Your task to perform on an android device: View the shopping cart on ebay. Add razer deathadder to the cart on ebay Image 0: 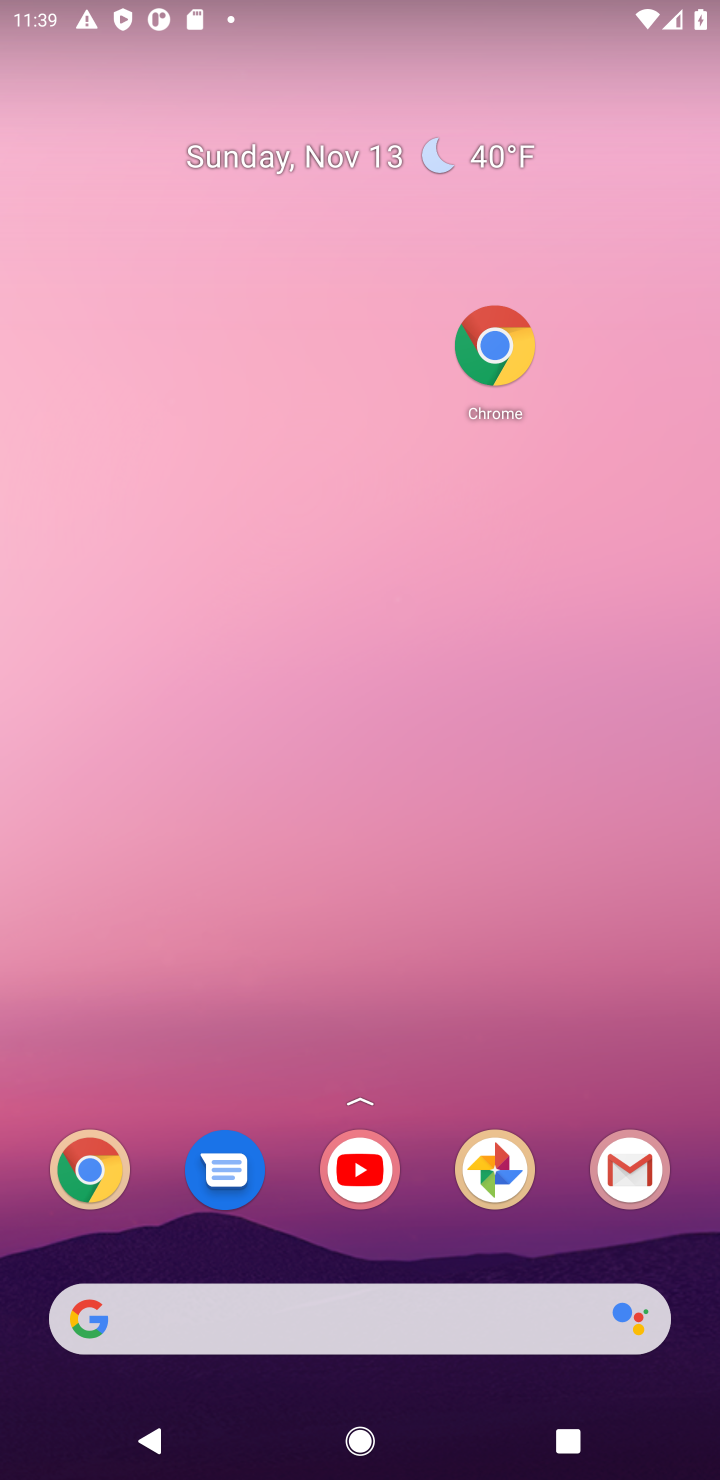
Step 0: drag from (307, 1081) to (449, 17)
Your task to perform on an android device: View the shopping cart on ebay. Add razer deathadder to the cart on ebay Image 1: 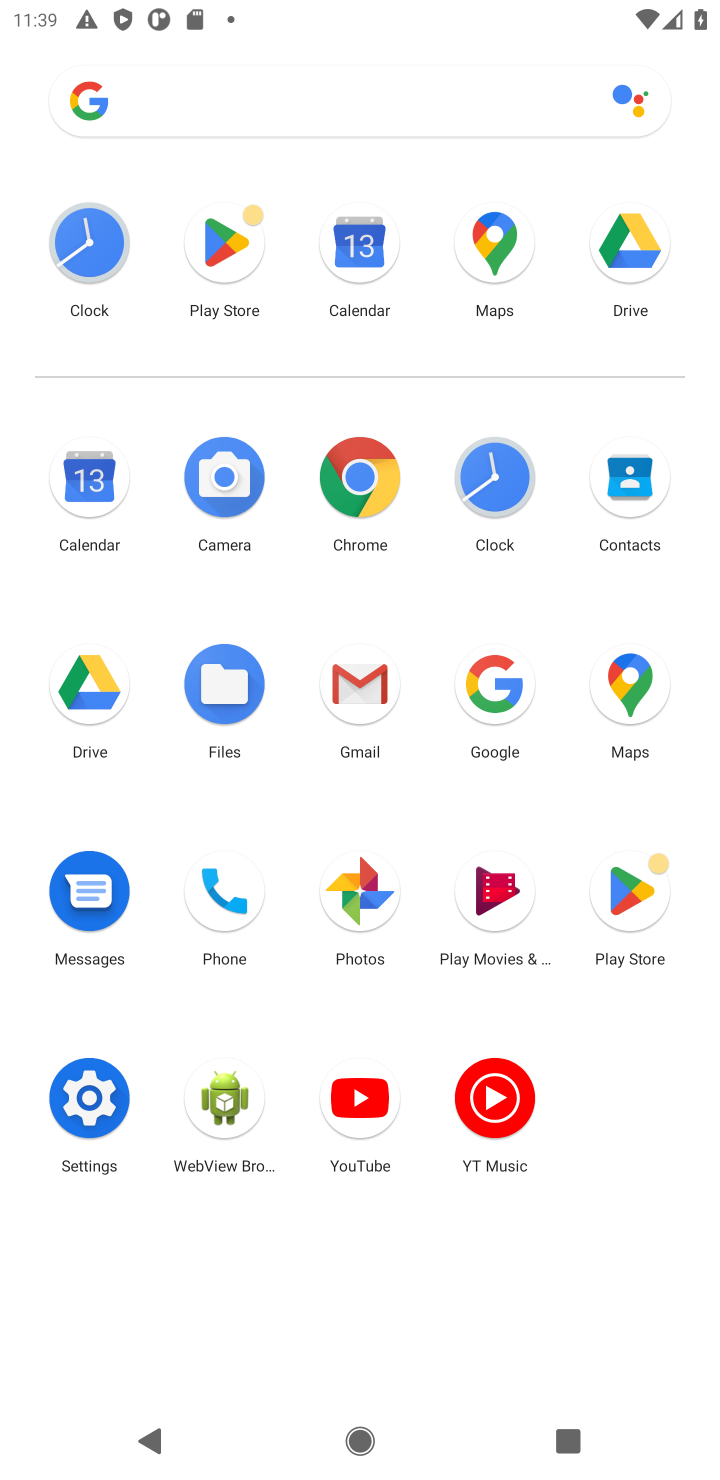
Step 1: click (374, 466)
Your task to perform on an android device: View the shopping cart on ebay. Add razer deathadder to the cart on ebay Image 2: 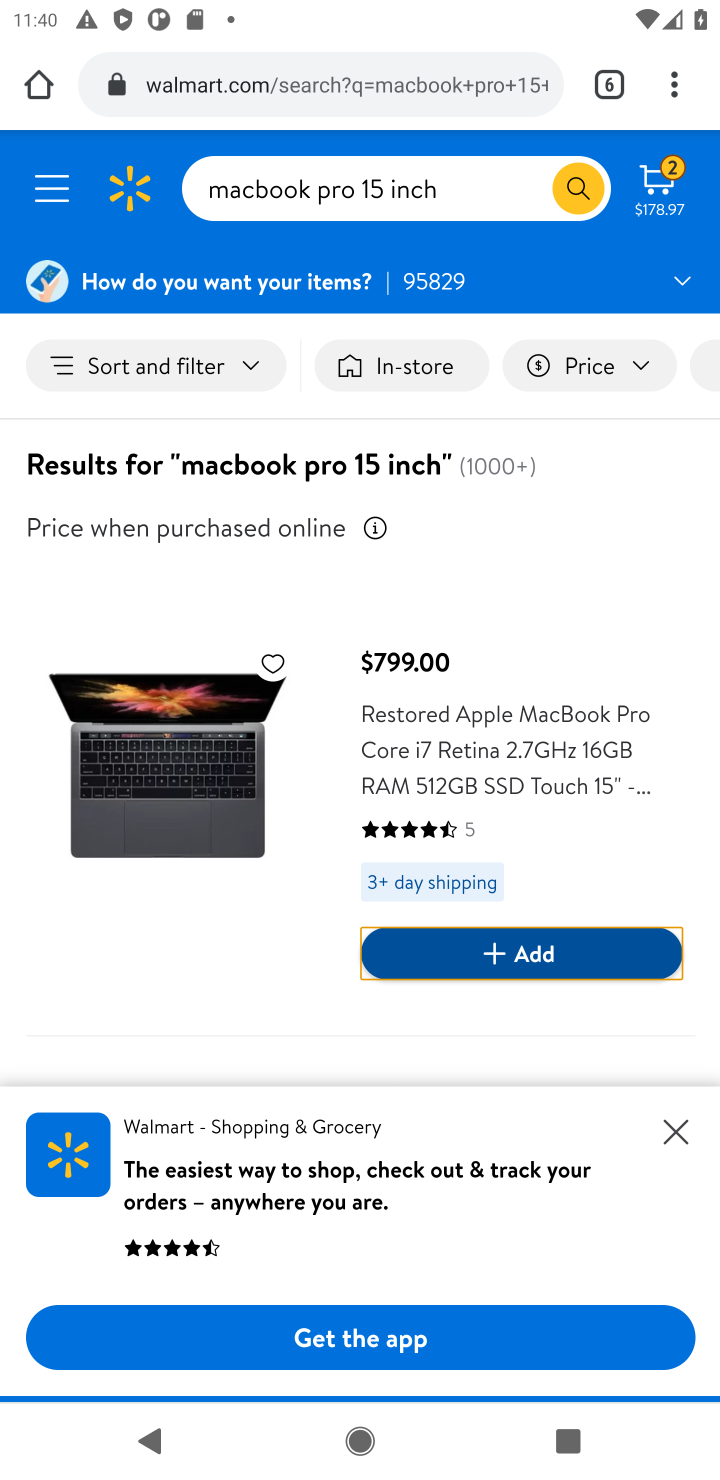
Step 2: click (412, 80)
Your task to perform on an android device: View the shopping cart on ebay. Add razer deathadder to the cart on ebay Image 3: 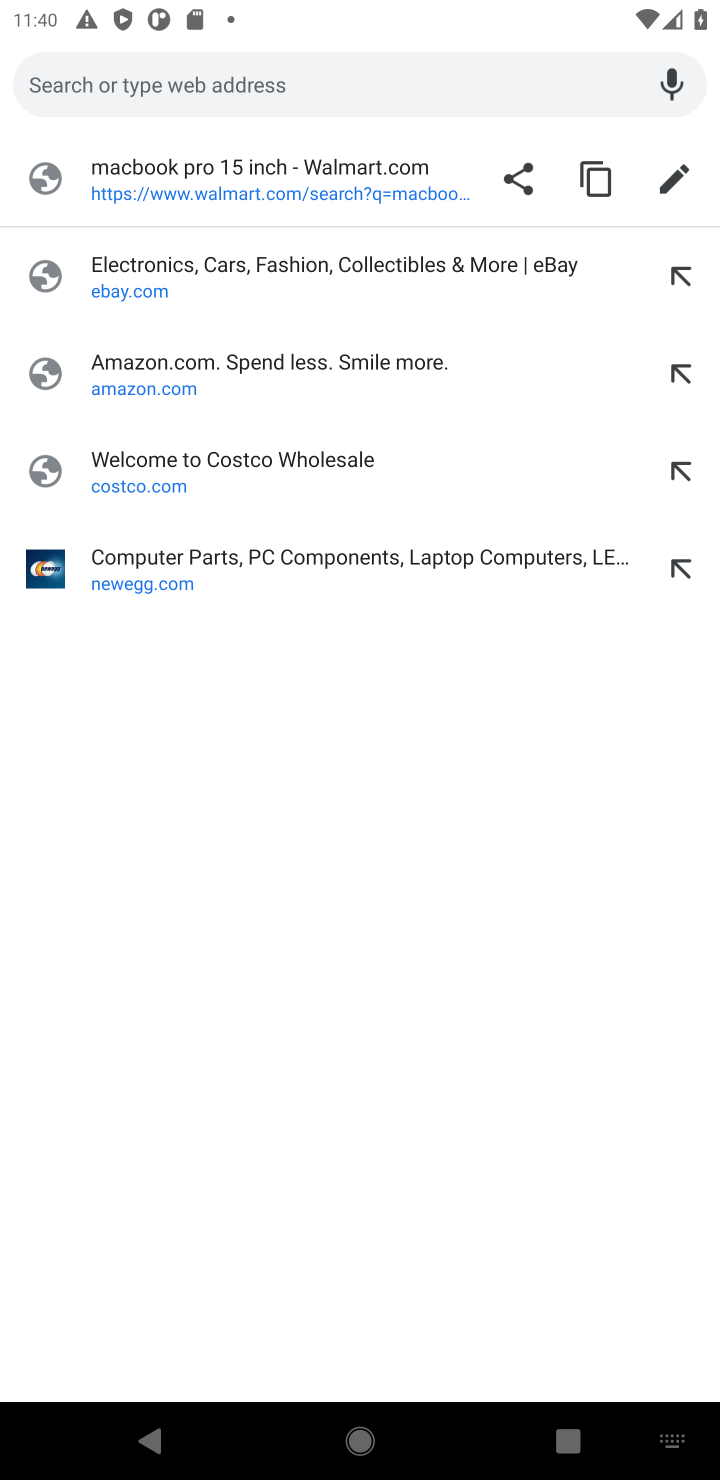
Step 3: type "ebay"
Your task to perform on an android device: View the shopping cart on ebay. Add razer deathadder to the cart on ebay Image 4: 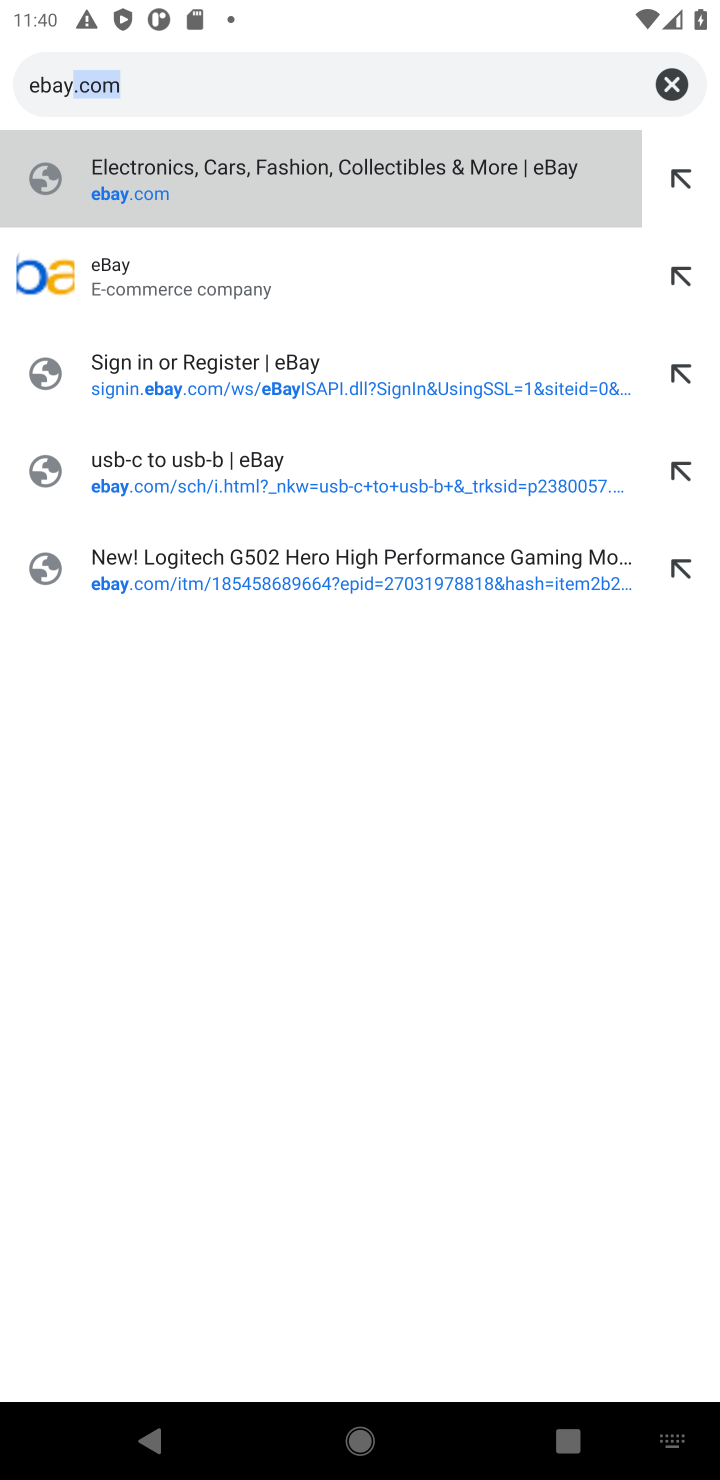
Step 4: press enter
Your task to perform on an android device: View the shopping cart on ebay. Add razer deathadder to the cart on ebay Image 5: 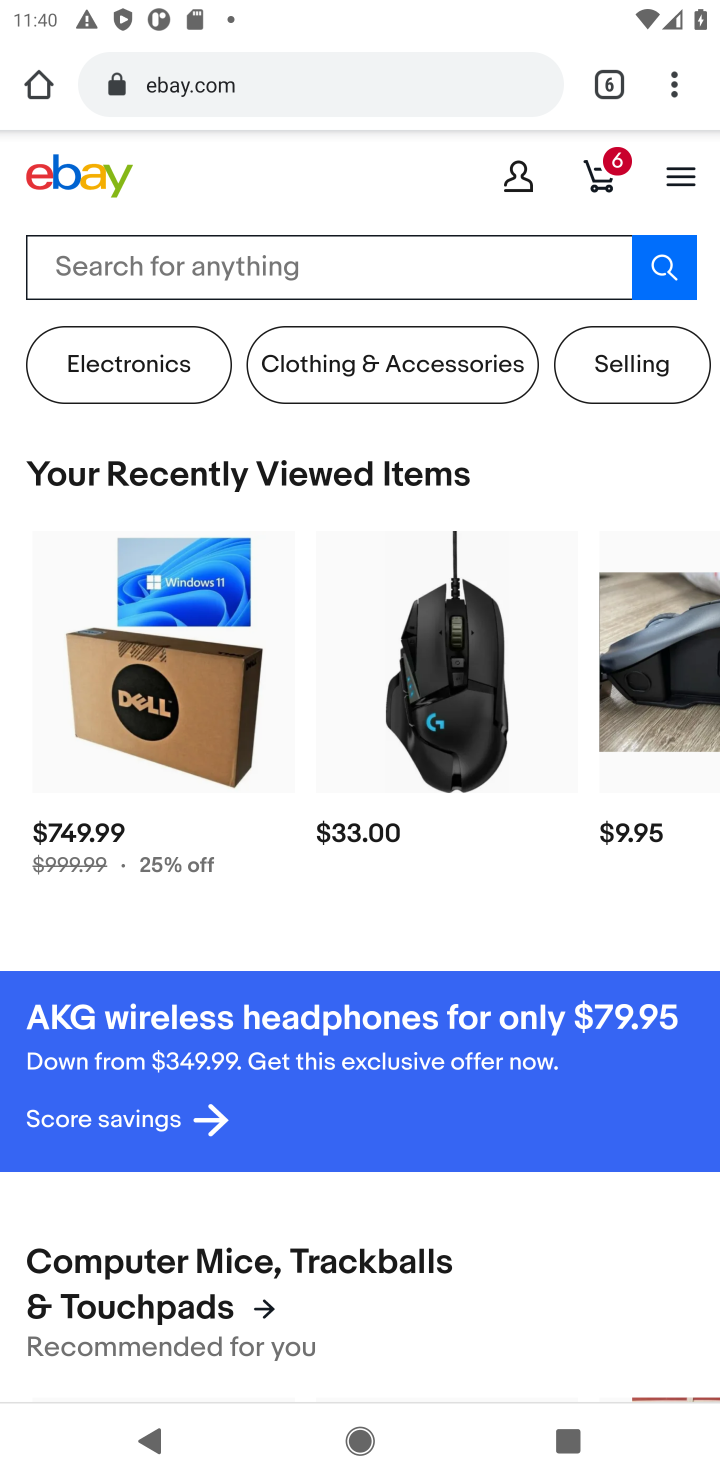
Step 5: click (306, 272)
Your task to perform on an android device: View the shopping cart on ebay. Add razer deathadder to the cart on ebay Image 6: 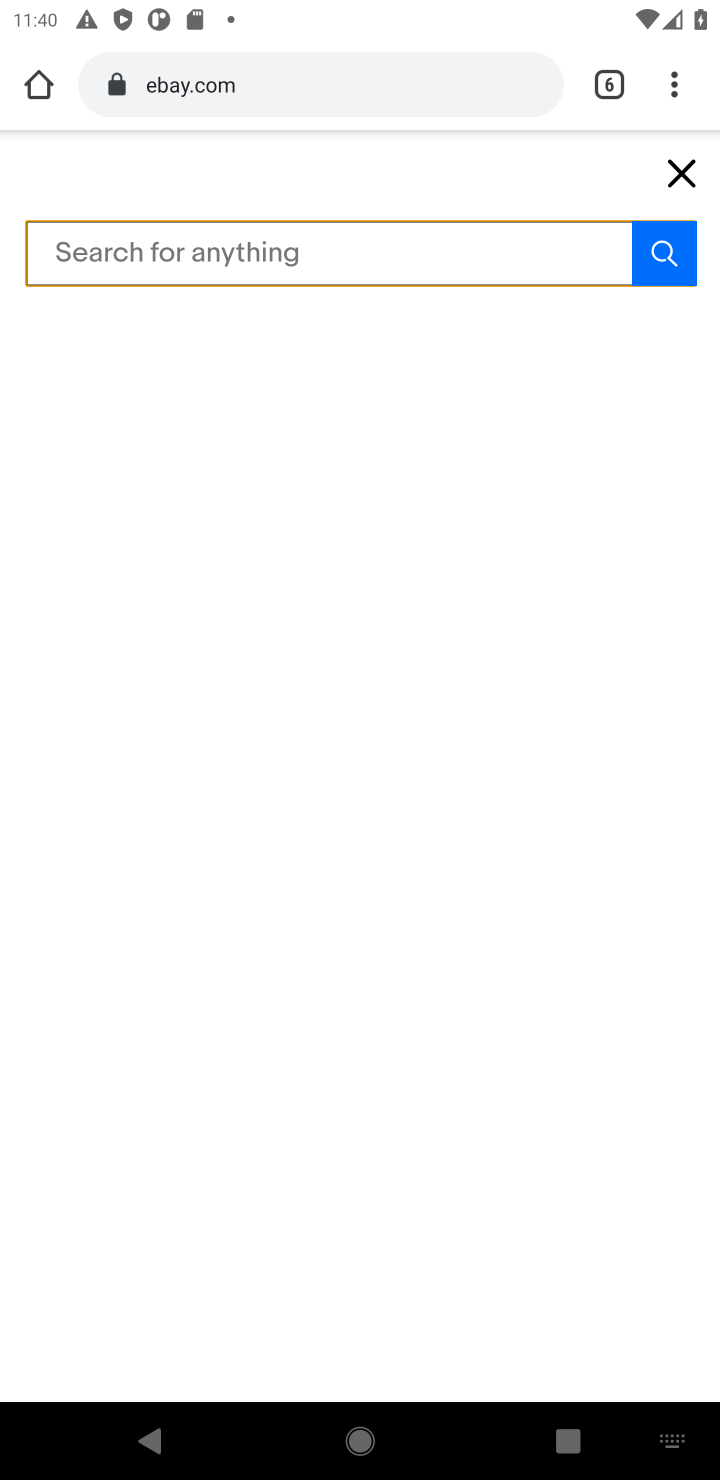
Step 6: type "Add razer deathadder"
Your task to perform on an android device: View the shopping cart on ebay. Add razer deathadder to the cart on ebay Image 7: 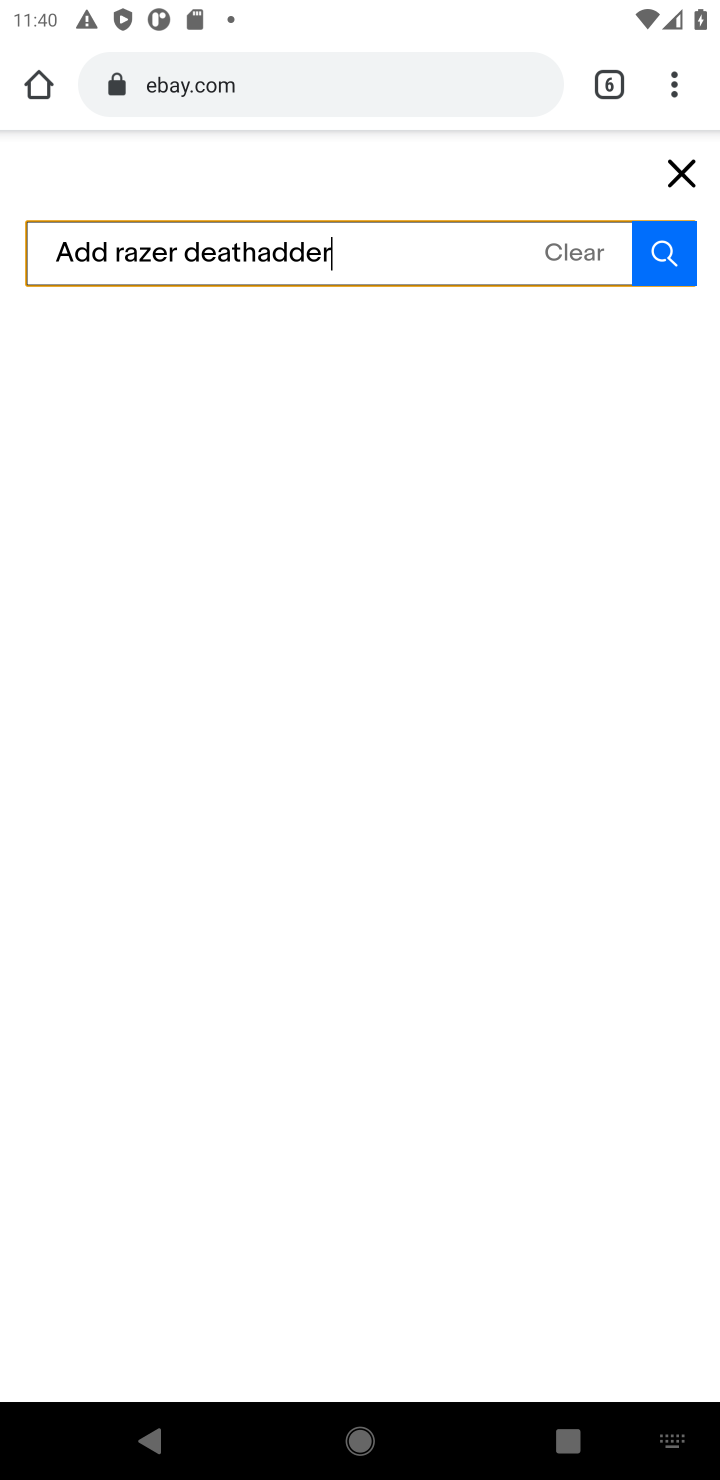
Step 7: press enter
Your task to perform on an android device: View the shopping cart on ebay. Add razer deathadder to the cart on ebay Image 8: 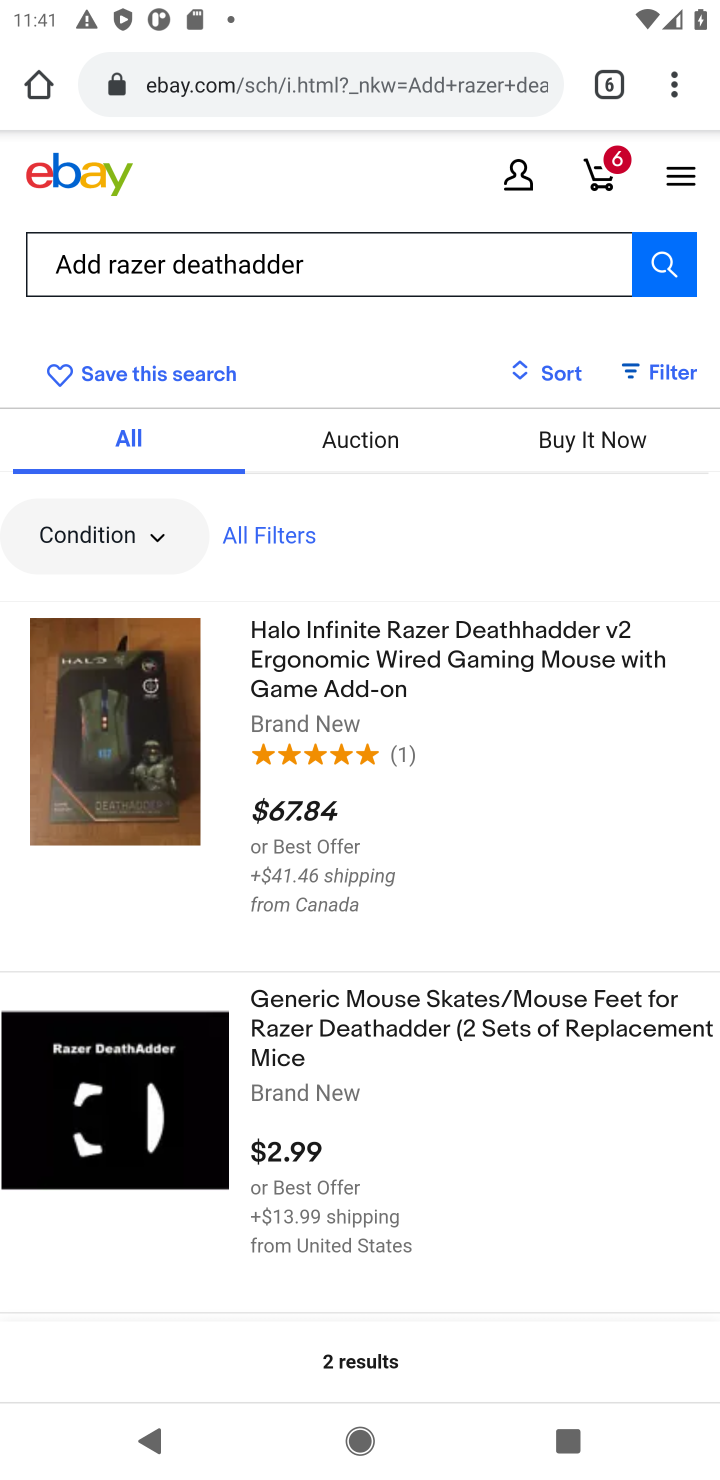
Step 8: click (393, 676)
Your task to perform on an android device: View the shopping cart on ebay. Add razer deathadder to the cart on ebay Image 9: 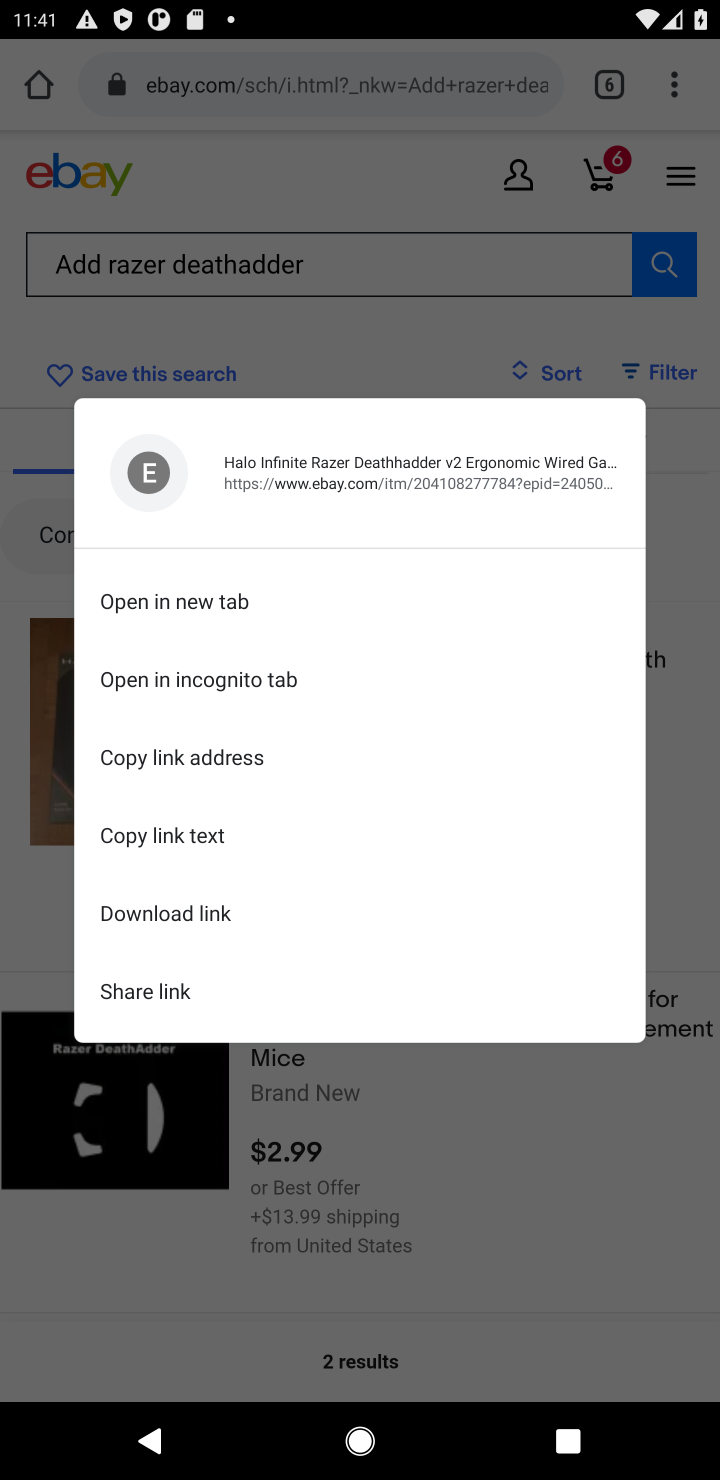
Step 9: click (112, 602)
Your task to perform on an android device: View the shopping cart on ebay. Add razer deathadder to the cart on ebay Image 10: 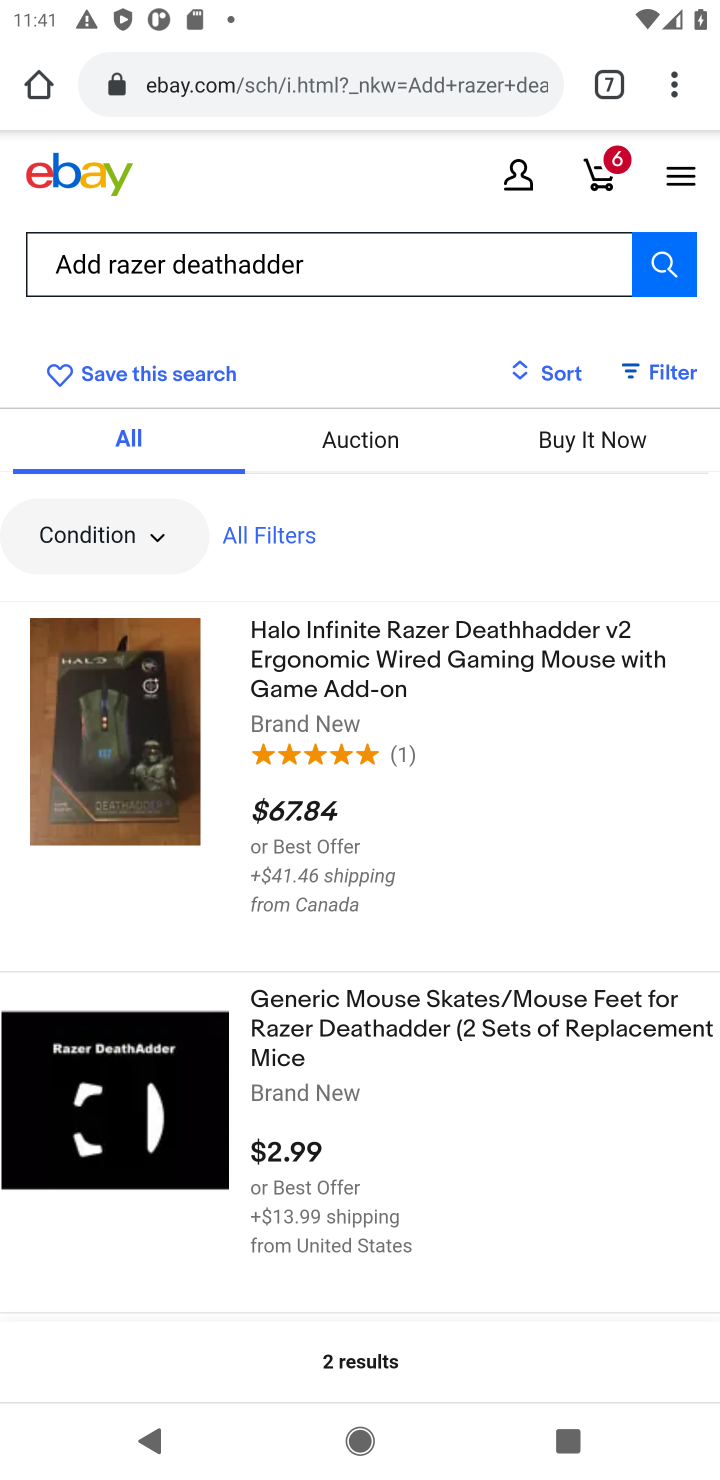
Step 10: click (352, 651)
Your task to perform on an android device: View the shopping cart on ebay. Add razer deathadder to the cart on ebay Image 11: 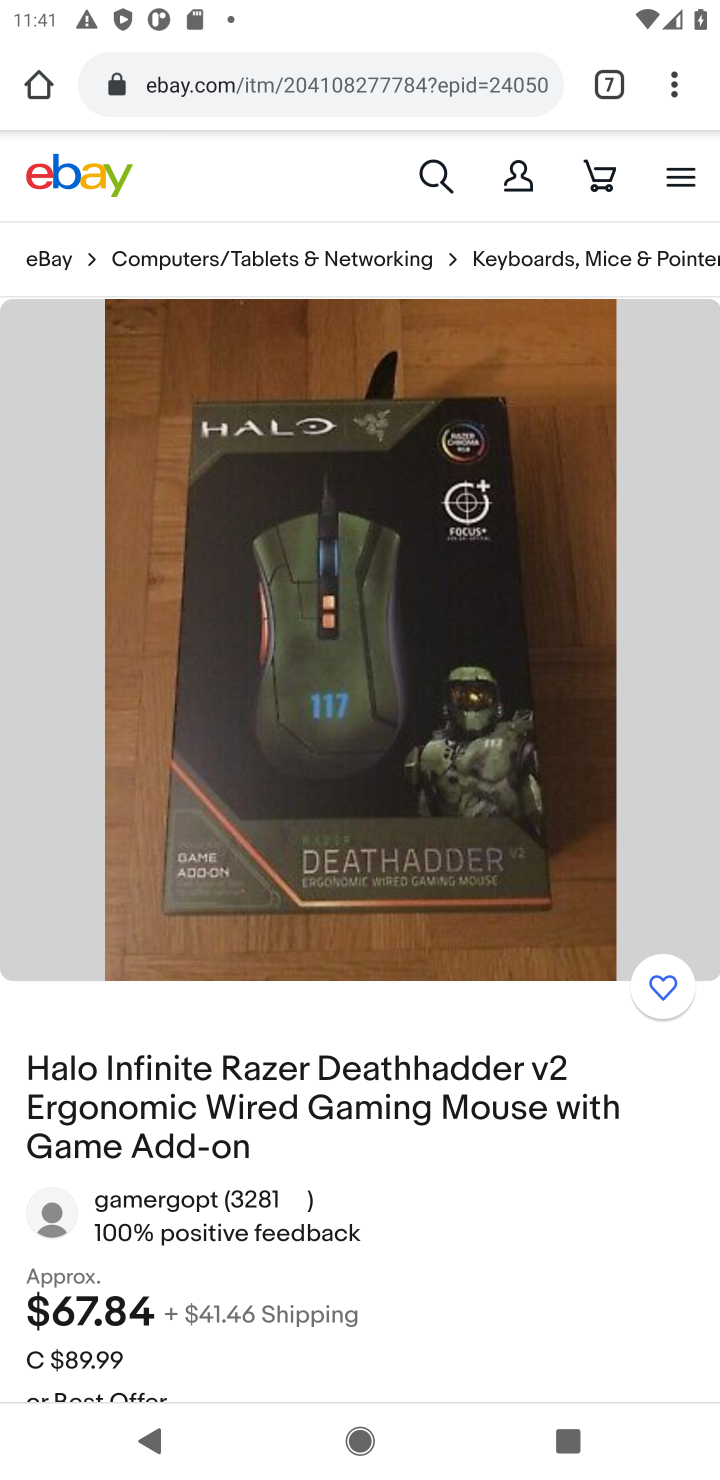
Step 11: drag from (337, 1264) to (395, 426)
Your task to perform on an android device: View the shopping cart on ebay. Add razer deathadder to the cart on ebay Image 12: 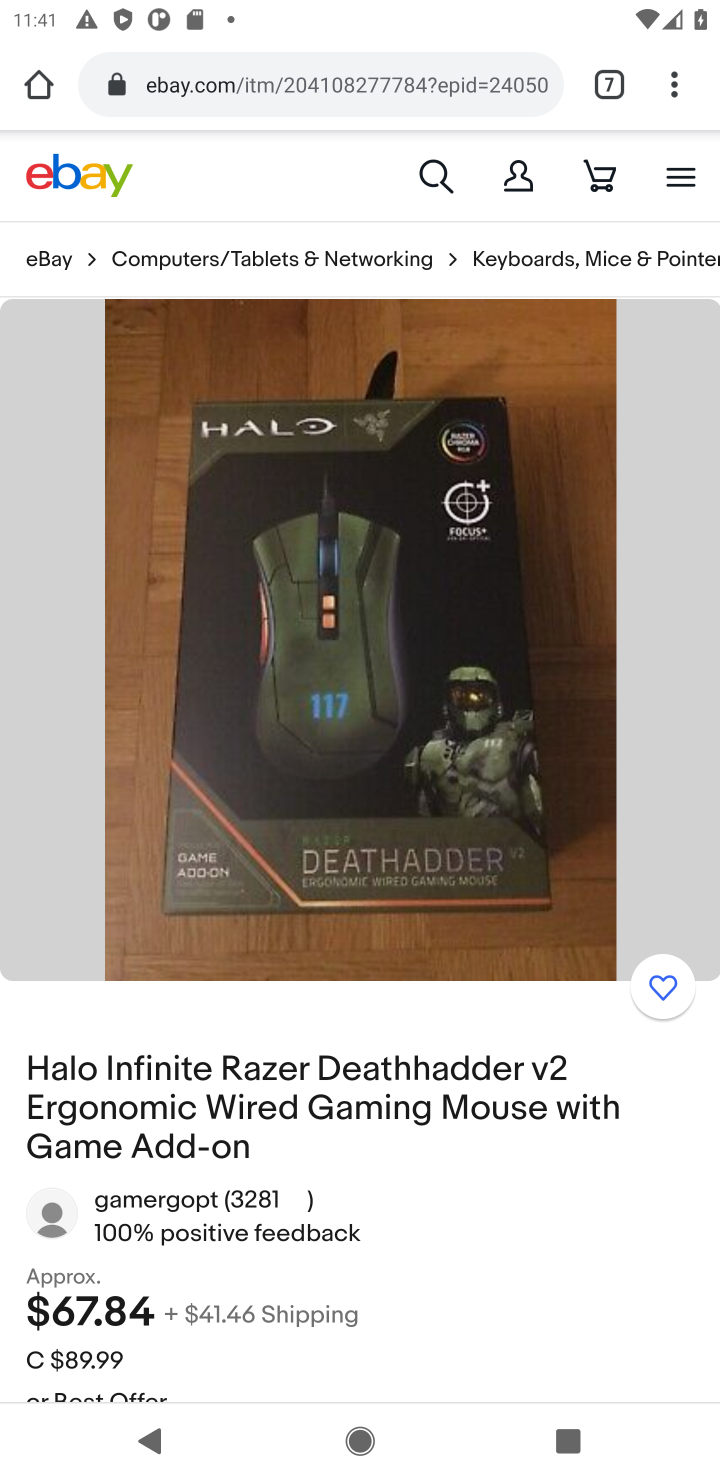
Step 12: drag from (361, 1254) to (371, 581)
Your task to perform on an android device: View the shopping cart on ebay. Add razer deathadder to the cart on ebay Image 13: 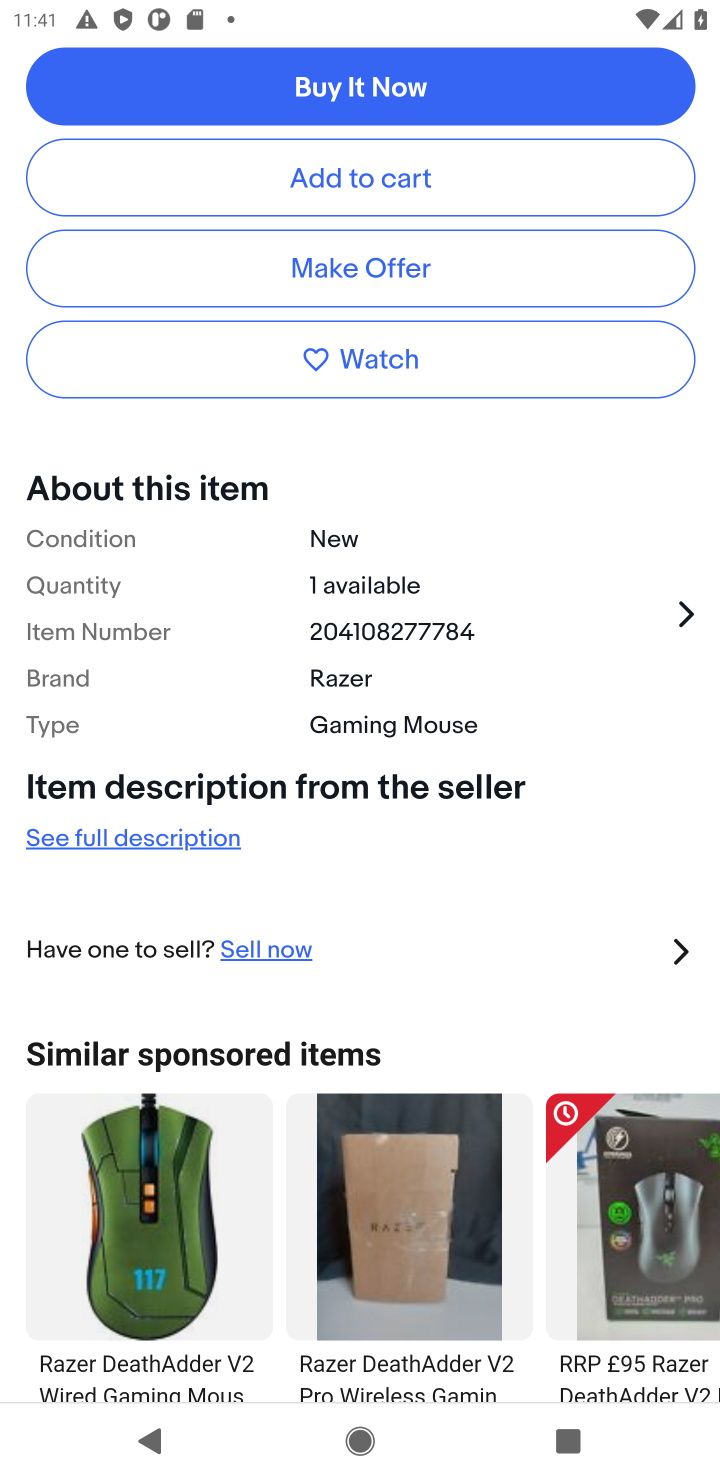
Step 13: click (378, 163)
Your task to perform on an android device: View the shopping cart on ebay. Add razer deathadder to the cart on ebay Image 14: 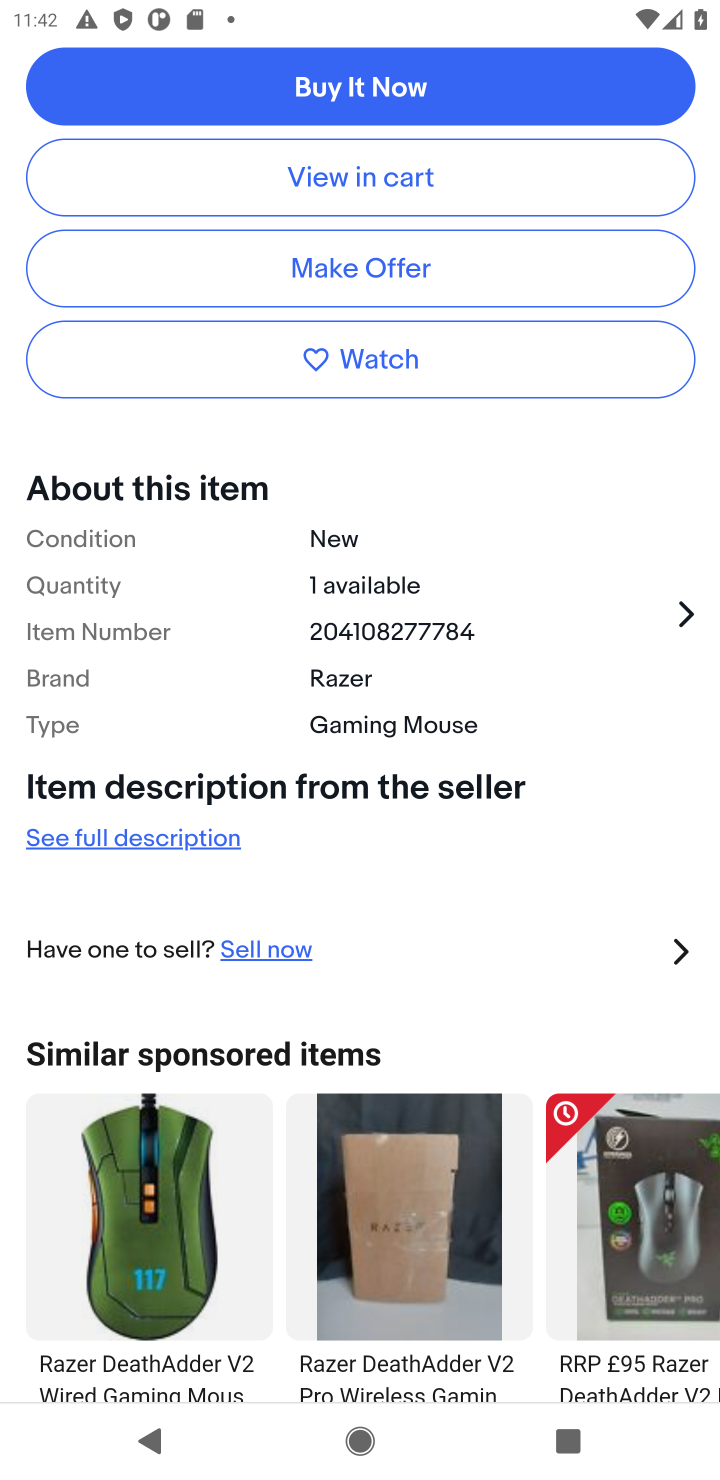
Step 14: task complete